Your task to perform on an android device: set the stopwatch Image 0: 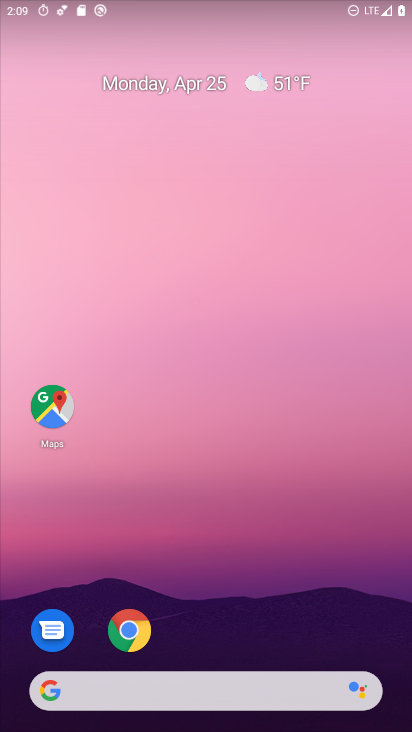
Step 0: click (225, 127)
Your task to perform on an android device: set the stopwatch Image 1: 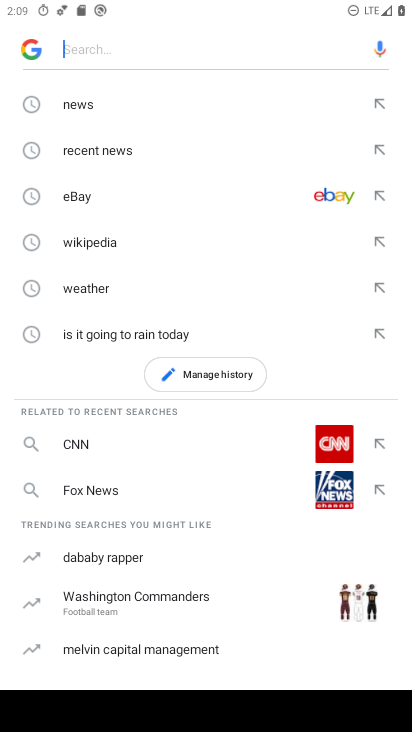
Step 1: press home button
Your task to perform on an android device: set the stopwatch Image 2: 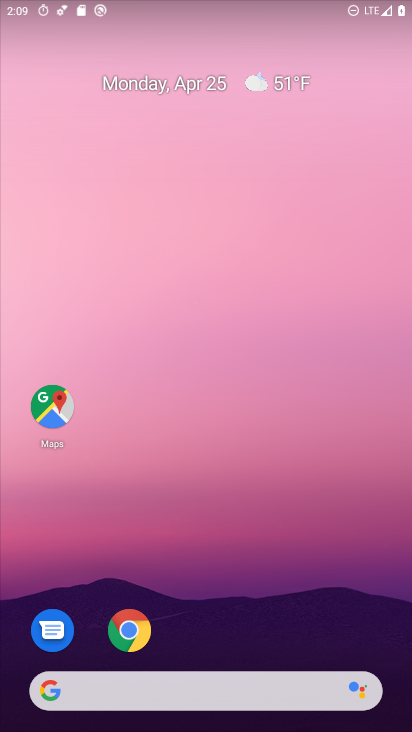
Step 2: drag from (205, 596) to (282, 240)
Your task to perform on an android device: set the stopwatch Image 3: 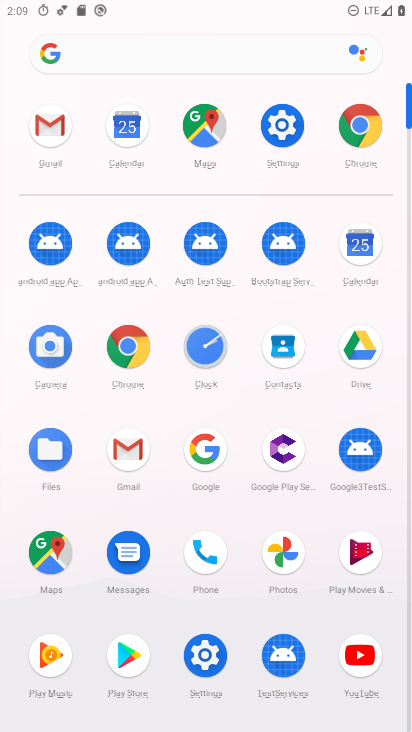
Step 3: click (201, 358)
Your task to perform on an android device: set the stopwatch Image 4: 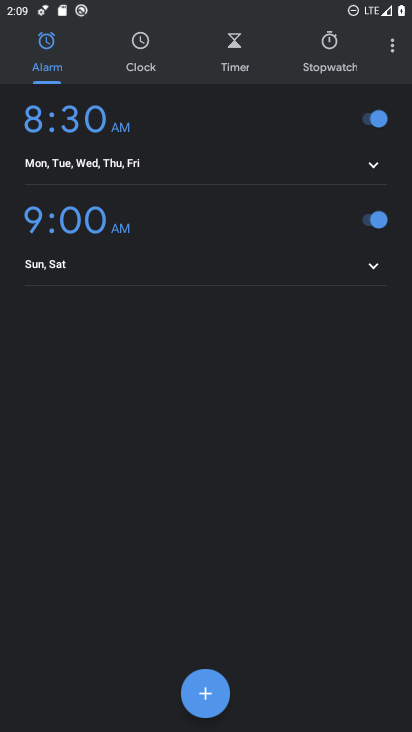
Step 4: click (303, 72)
Your task to perform on an android device: set the stopwatch Image 5: 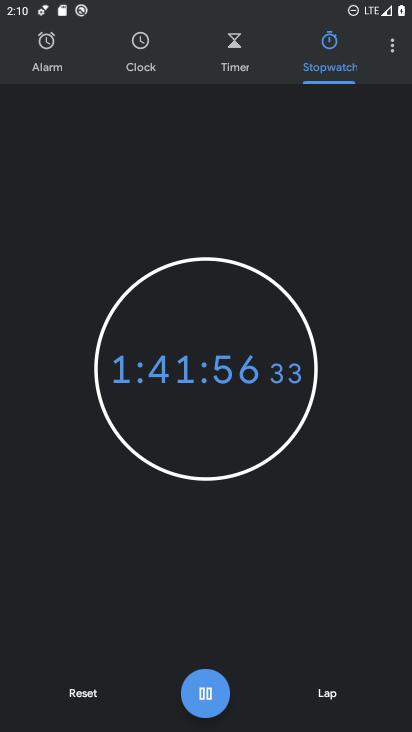
Step 5: click (78, 693)
Your task to perform on an android device: set the stopwatch Image 6: 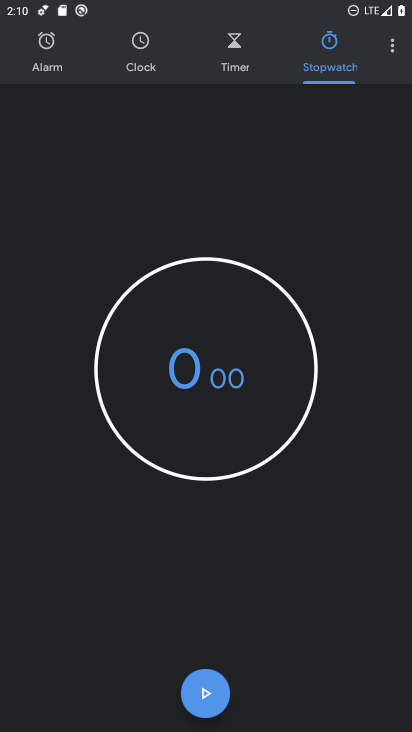
Step 6: click (208, 697)
Your task to perform on an android device: set the stopwatch Image 7: 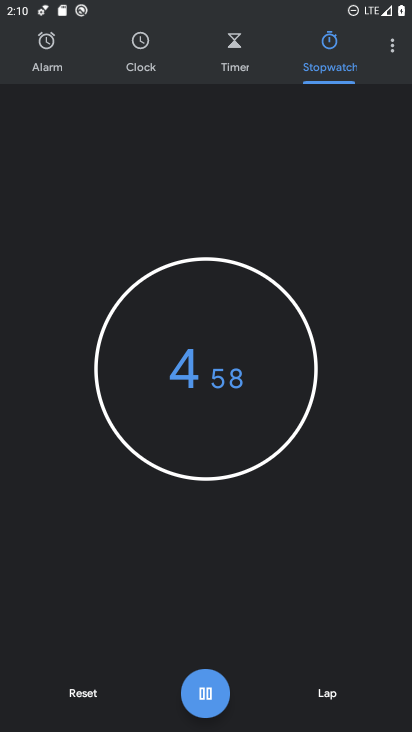
Step 7: task complete